Your task to perform on an android device: What's the weather today? Image 0: 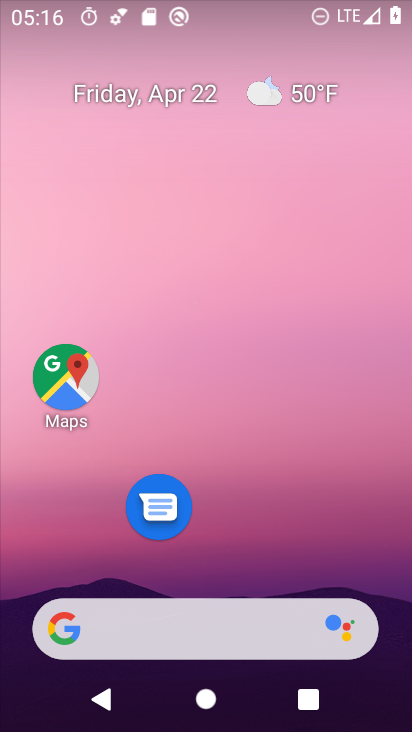
Step 0: click (268, 96)
Your task to perform on an android device: What's the weather today? Image 1: 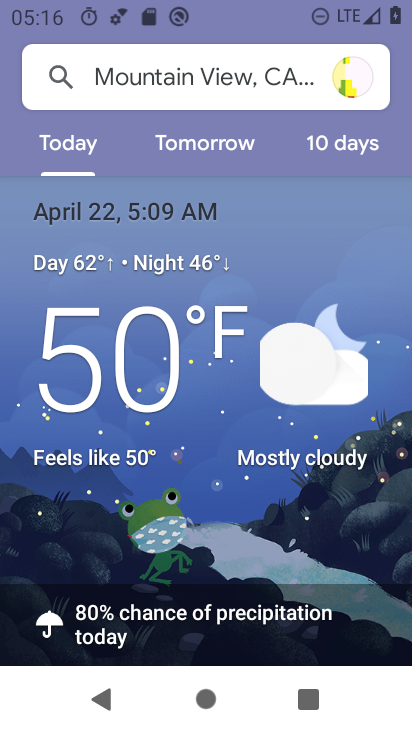
Step 1: task complete